Your task to perform on an android device: Open Wikipedia Image 0: 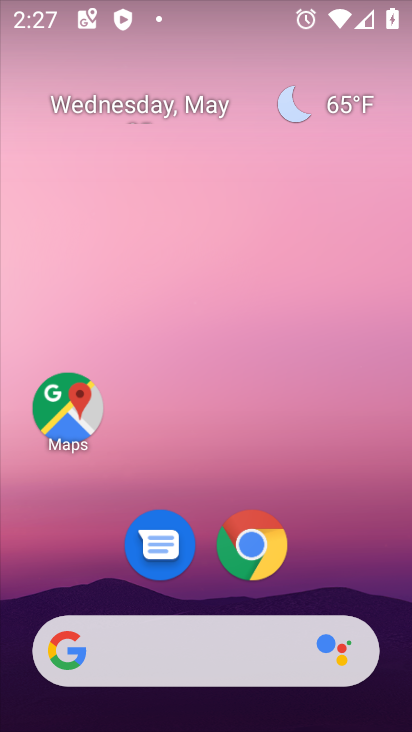
Step 0: click (263, 545)
Your task to perform on an android device: Open Wikipedia Image 1: 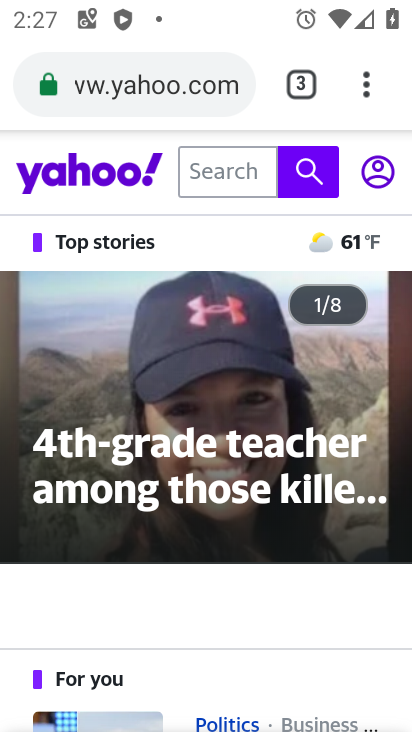
Step 1: click (307, 89)
Your task to perform on an android device: Open Wikipedia Image 2: 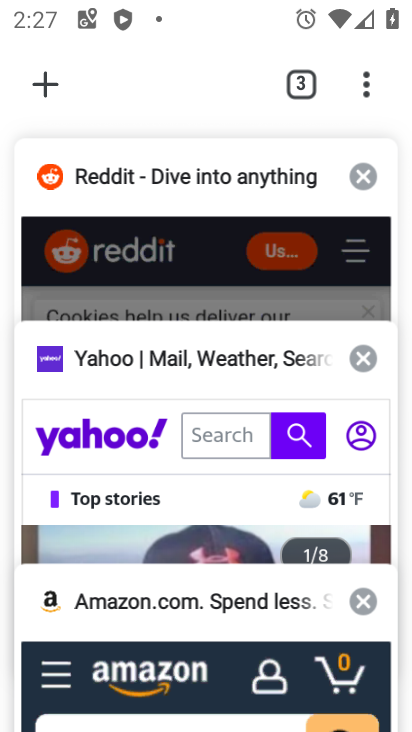
Step 2: click (39, 80)
Your task to perform on an android device: Open Wikipedia Image 3: 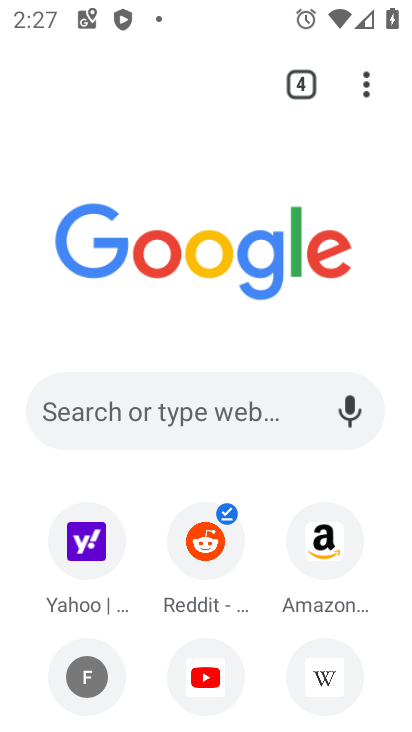
Step 3: drag from (255, 562) to (250, 218)
Your task to perform on an android device: Open Wikipedia Image 4: 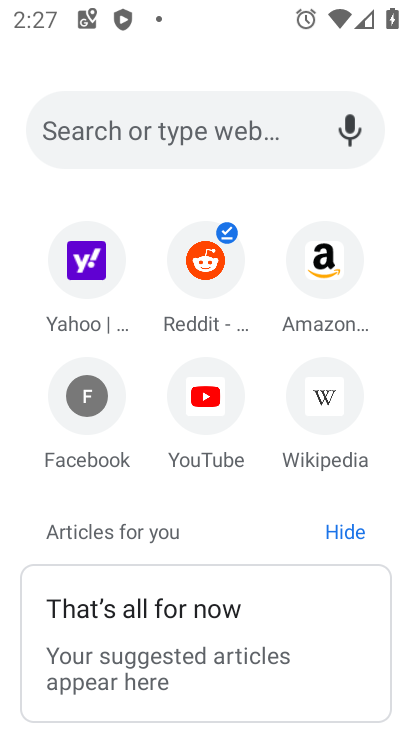
Step 4: click (327, 402)
Your task to perform on an android device: Open Wikipedia Image 5: 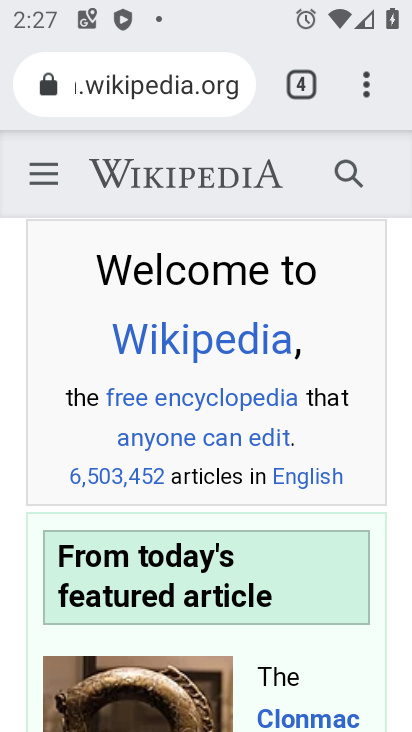
Step 5: task complete